Your task to perform on an android device: What's the weather going to be tomorrow? Image 0: 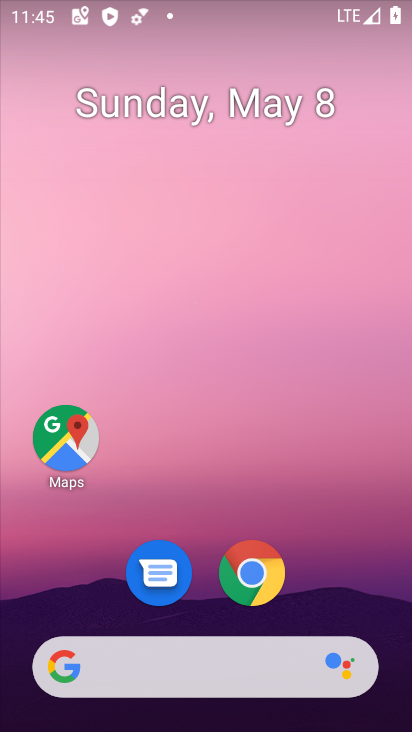
Step 0: drag from (310, 565) to (244, 23)
Your task to perform on an android device: What's the weather going to be tomorrow? Image 1: 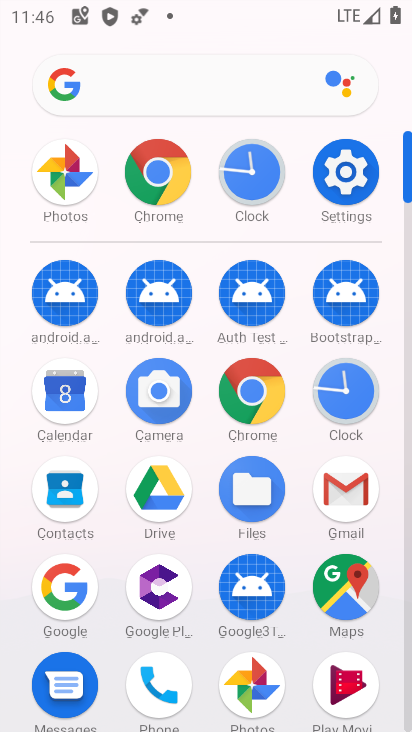
Step 1: drag from (12, 532) to (2, 237)
Your task to perform on an android device: What's the weather going to be tomorrow? Image 2: 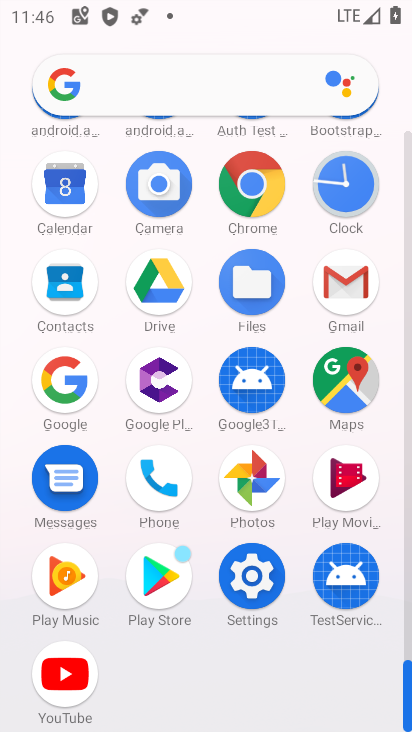
Step 2: click (249, 166)
Your task to perform on an android device: What's the weather going to be tomorrow? Image 3: 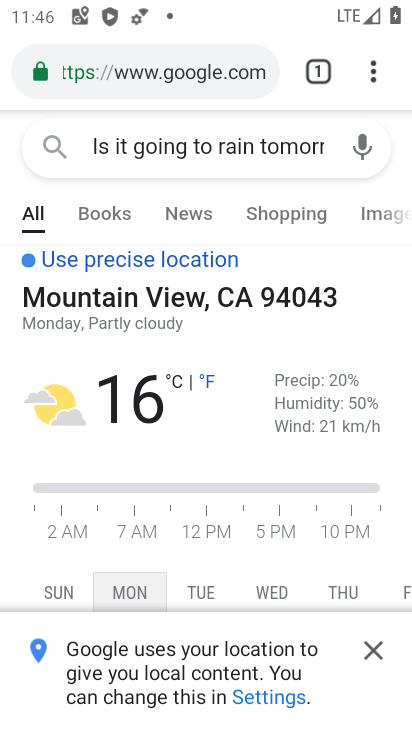
Step 3: task complete